Your task to perform on an android device: read, delete, or share a saved page in the chrome app Image 0: 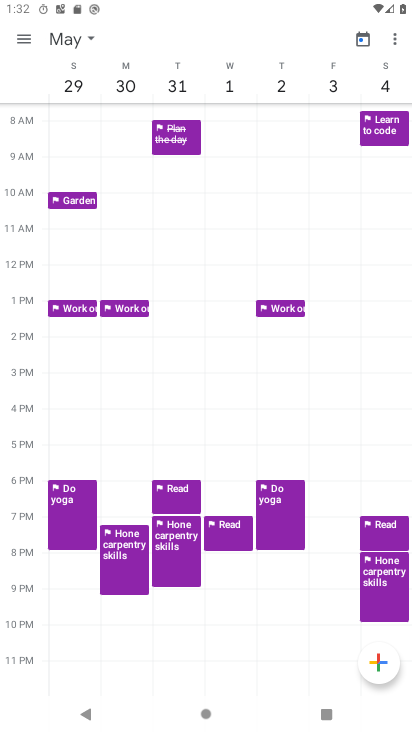
Step 0: press home button
Your task to perform on an android device: read, delete, or share a saved page in the chrome app Image 1: 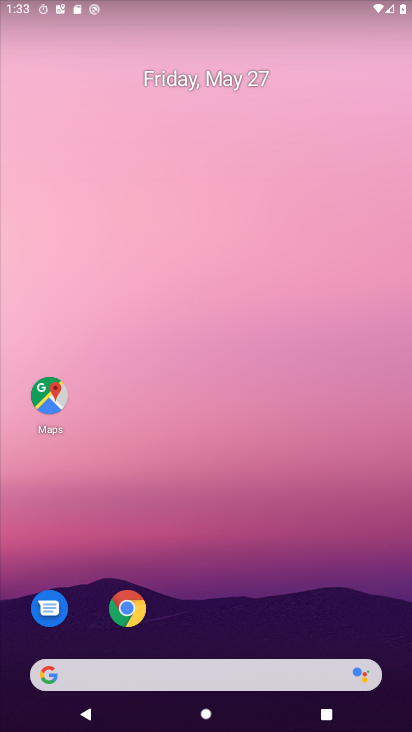
Step 1: click (122, 609)
Your task to perform on an android device: read, delete, or share a saved page in the chrome app Image 2: 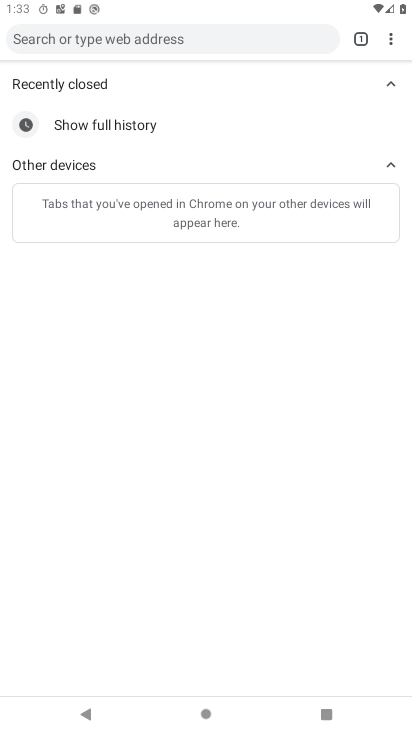
Step 2: click (388, 39)
Your task to perform on an android device: read, delete, or share a saved page in the chrome app Image 3: 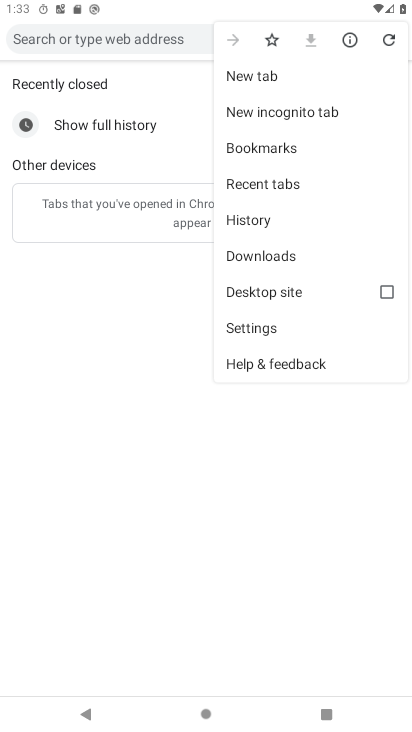
Step 3: click (244, 259)
Your task to perform on an android device: read, delete, or share a saved page in the chrome app Image 4: 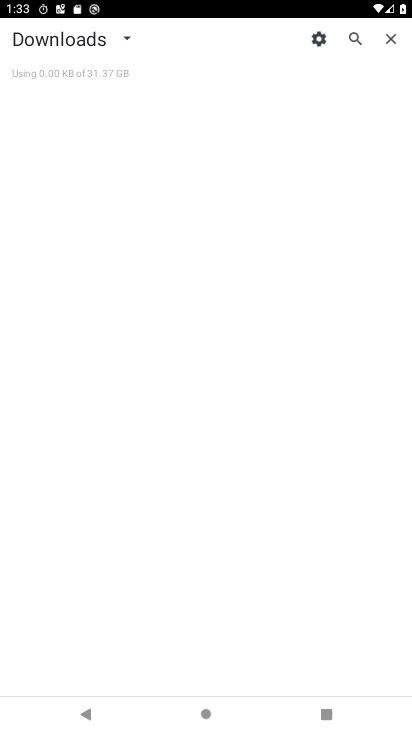
Step 4: task complete